Your task to perform on an android device: Open Google Image 0: 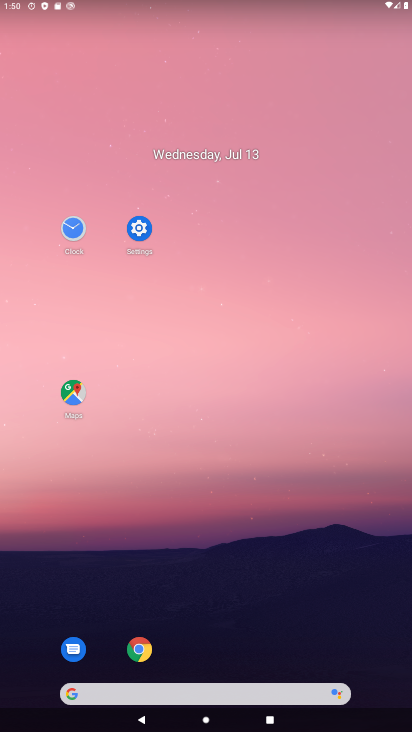
Step 0: drag from (292, 616) to (346, 176)
Your task to perform on an android device: Open Google Image 1: 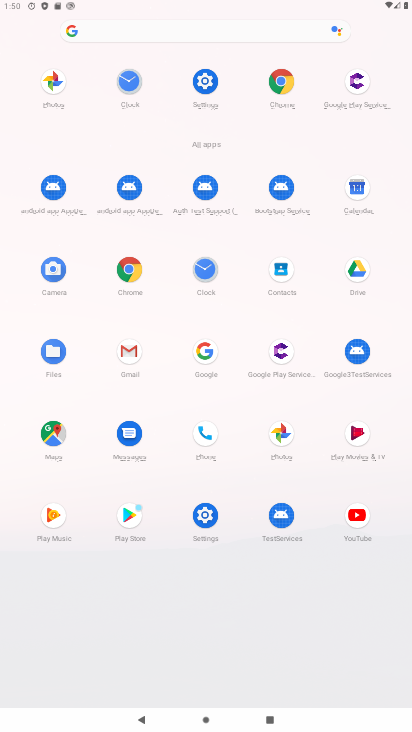
Step 1: click (211, 352)
Your task to perform on an android device: Open Google Image 2: 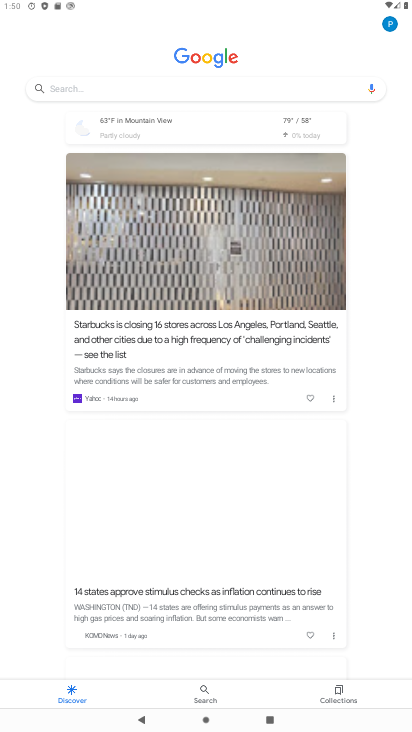
Step 2: task complete